Your task to perform on an android device: Go to Yahoo.com Image 0: 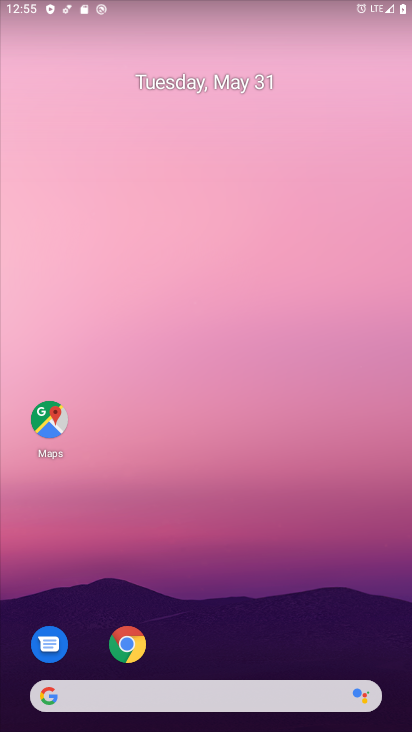
Step 0: click (129, 645)
Your task to perform on an android device: Go to Yahoo.com Image 1: 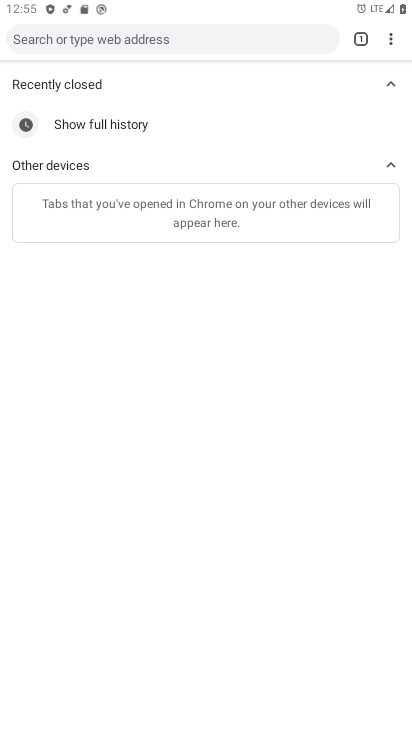
Step 1: click (80, 40)
Your task to perform on an android device: Go to Yahoo.com Image 2: 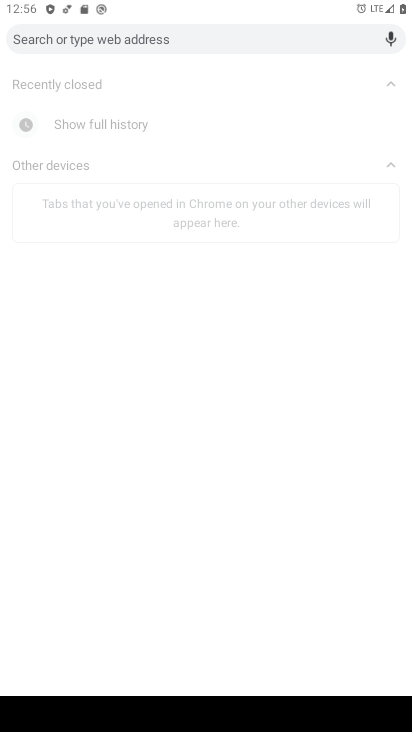
Step 2: type "yahoo.com"
Your task to perform on an android device: Go to Yahoo.com Image 3: 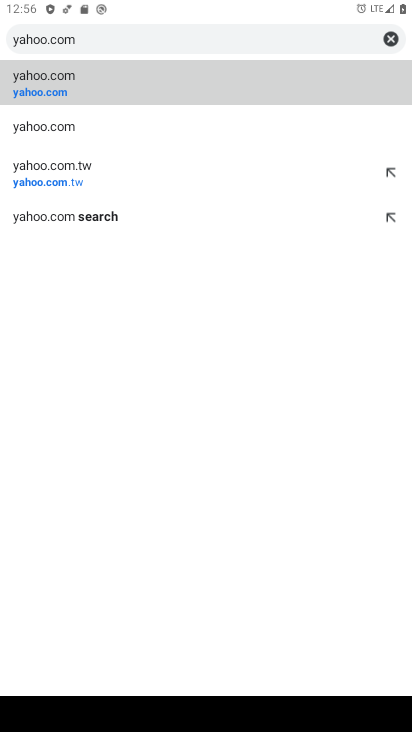
Step 3: click (71, 93)
Your task to perform on an android device: Go to Yahoo.com Image 4: 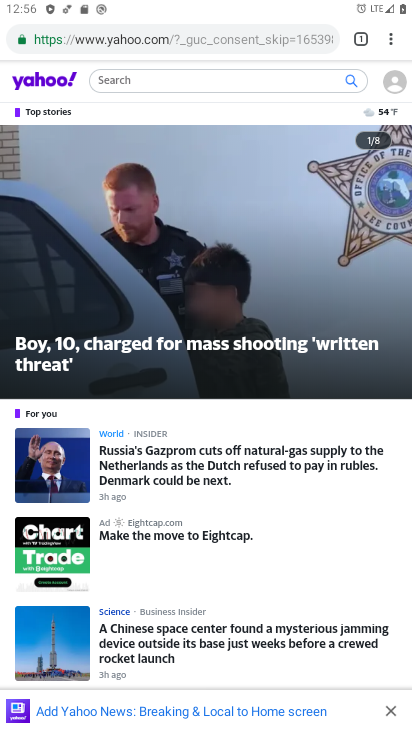
Step 4: task complete